Your task to perform on an android device: open app "AliExpress" (install if not already installed), go to login, and select forgot password Image 0: 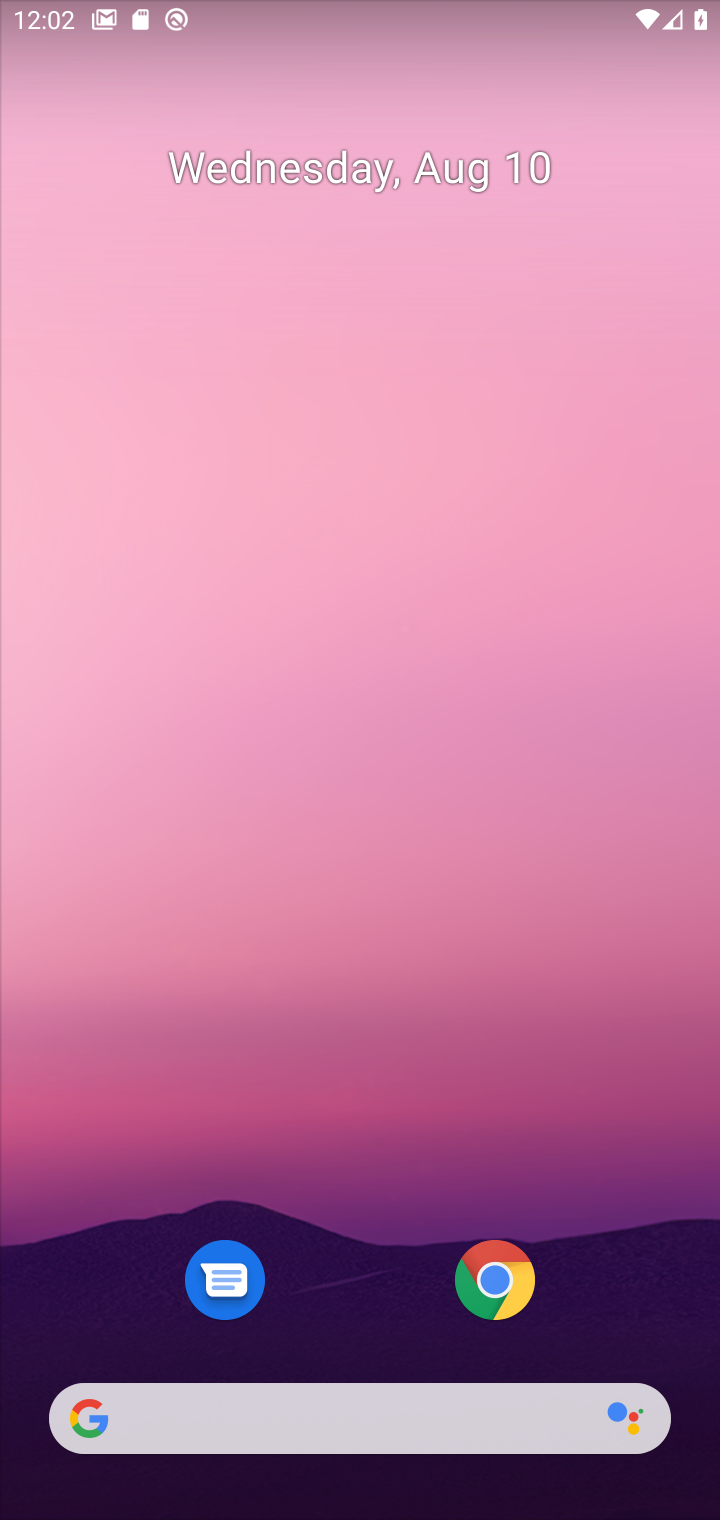
Step 0: drag from (349, 1060) to (457, 168)
Your task to perform on an android device: open app "AliExpress" (install if not already installed), go to login, and select forgot password Image 1: 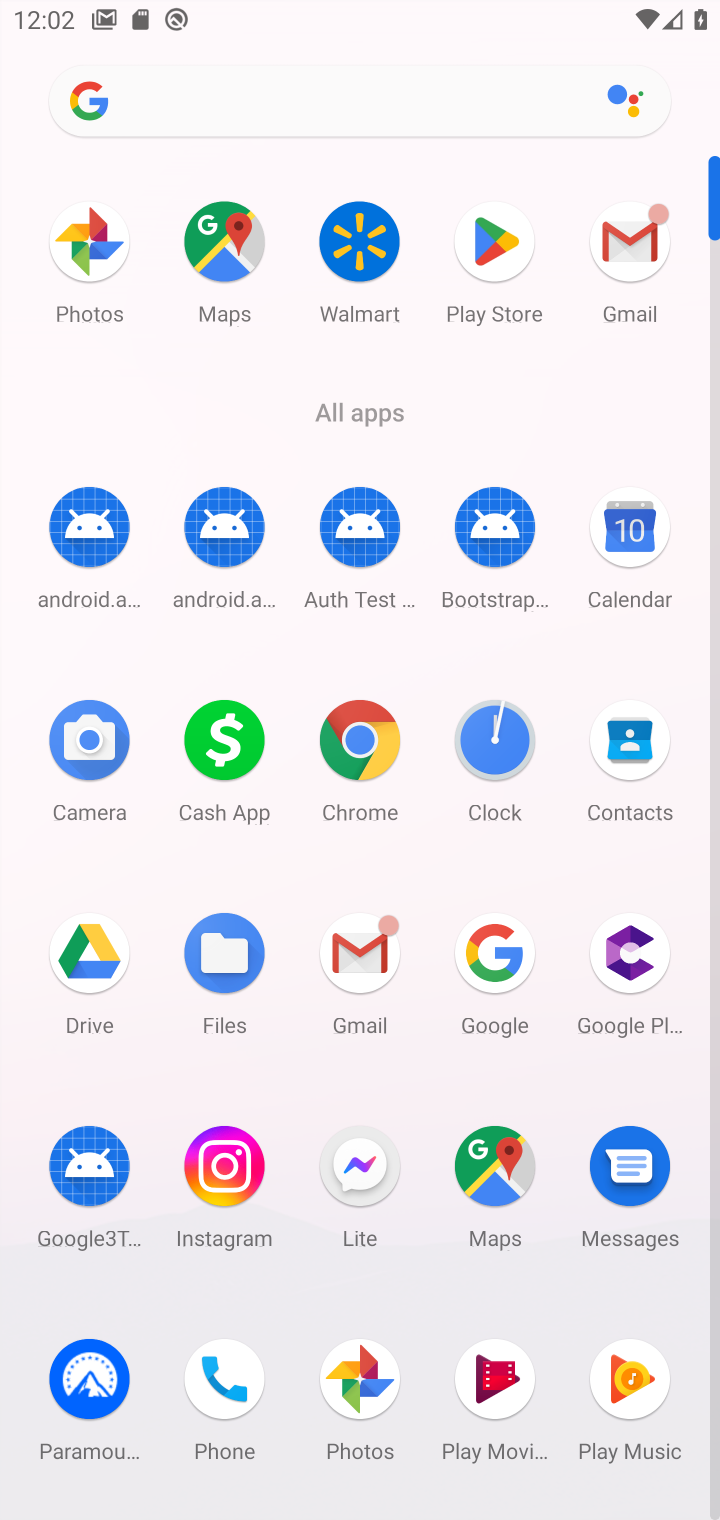
Step 1: click (511, 232)
Your task to perform on an android device: open app "AliExpress" (install if not already installed), go to login, and select forgot password Image 2: 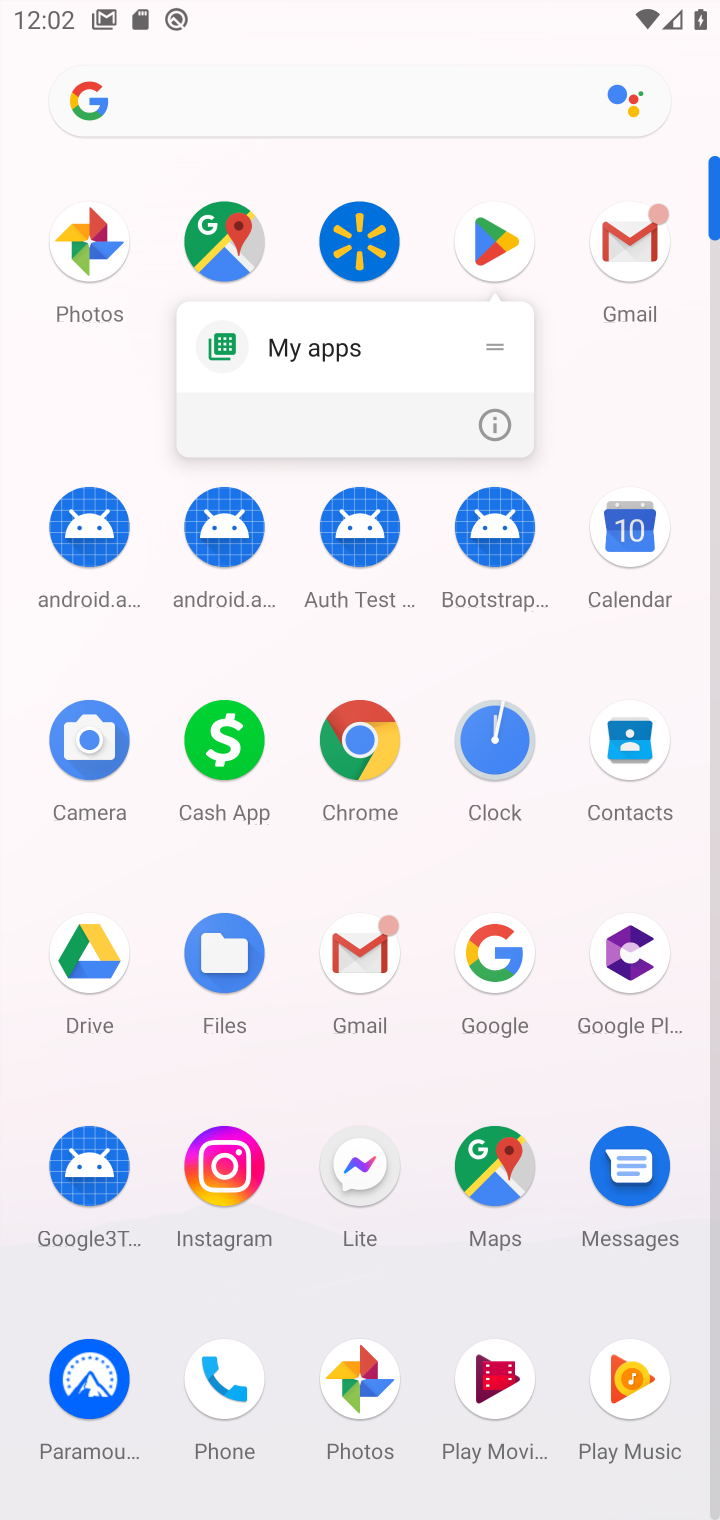
Step 2: click (494, 244)
Your task to perform on an android device: open app "AliExpress" (install if not already installed), go to login, and select forgot password Image 3: 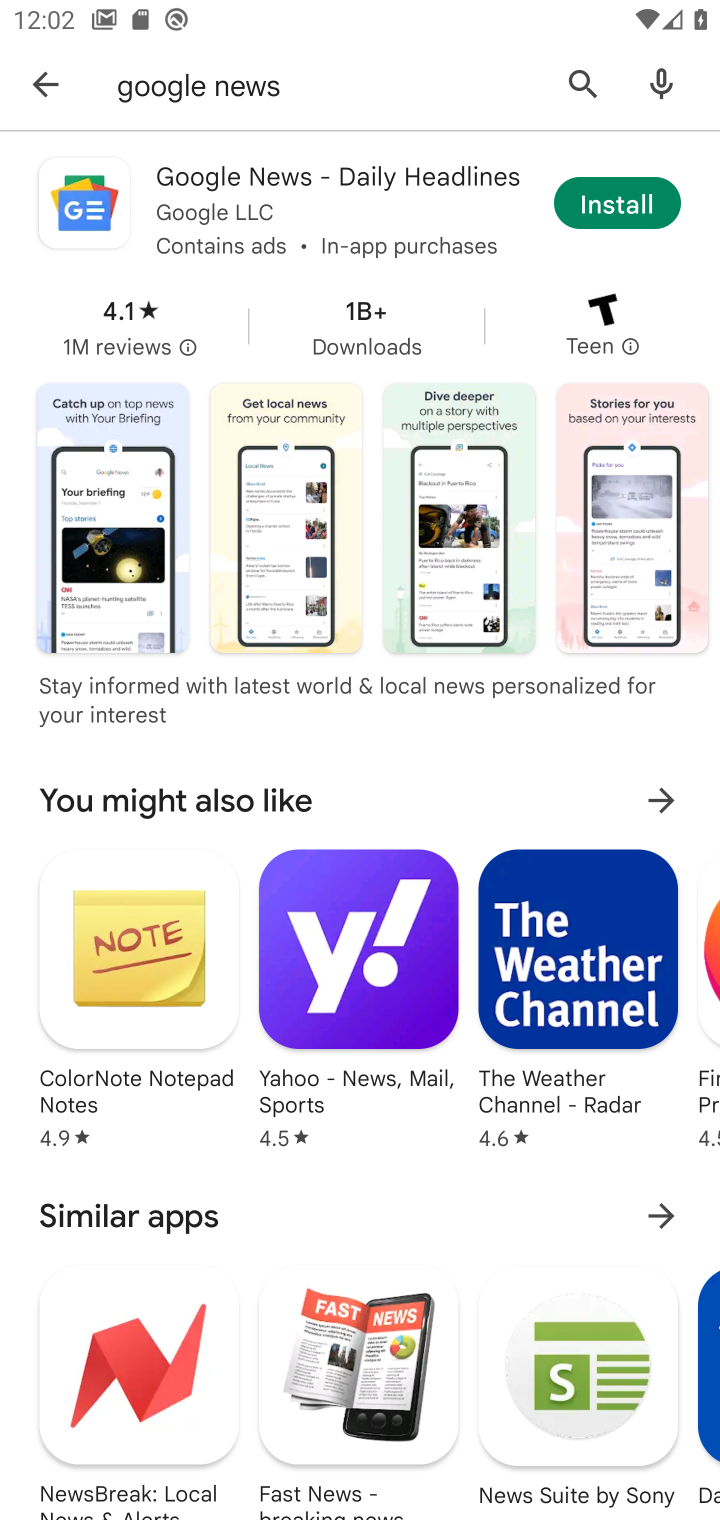
Step 3: click (592, 73)
Your task to perform on an android device: open app "AliExpress" (install if not already installed), go to login, and select forgot password Image 4: 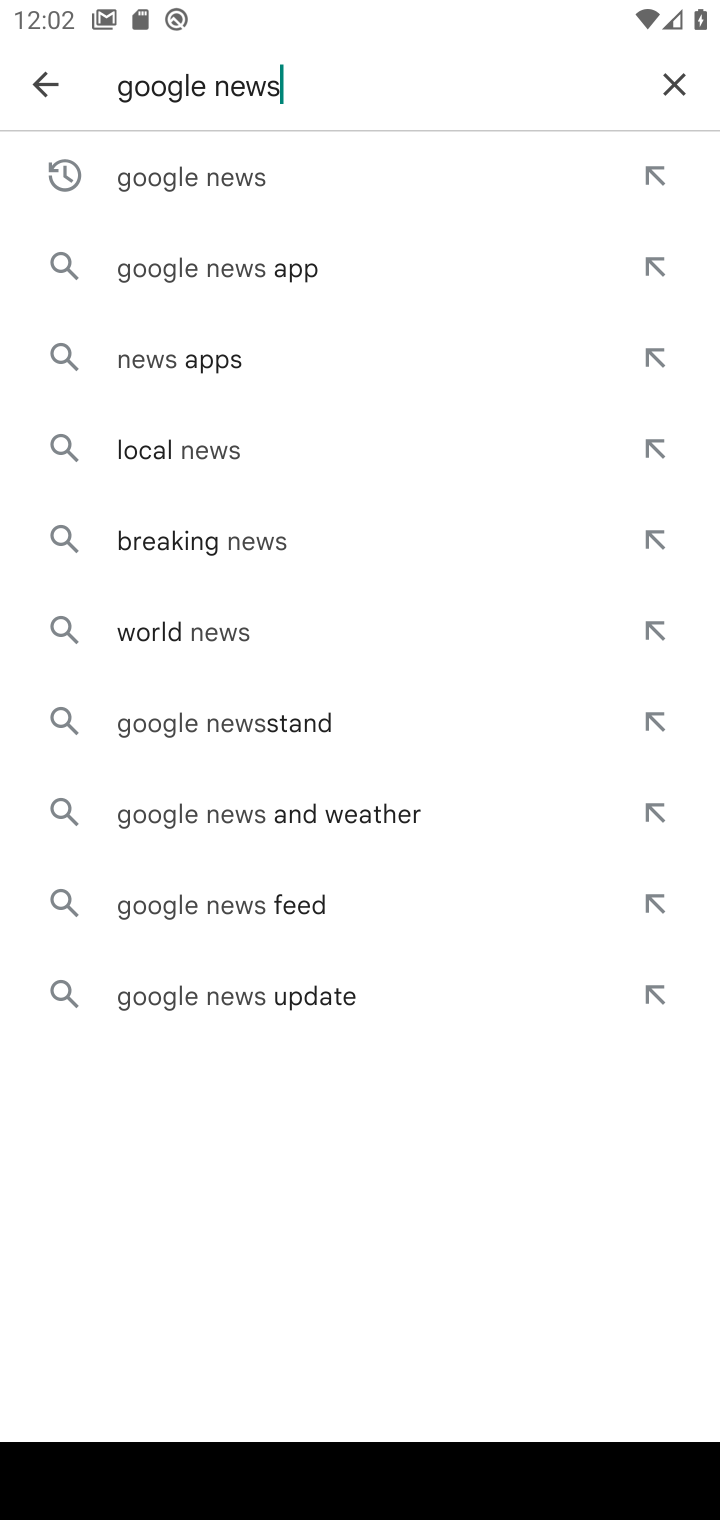
Step 4: click (677, 81)
Your task to perform on an android device: open app "AliExpress" (install if not already installed), go to login, and select forgot password Image 5: 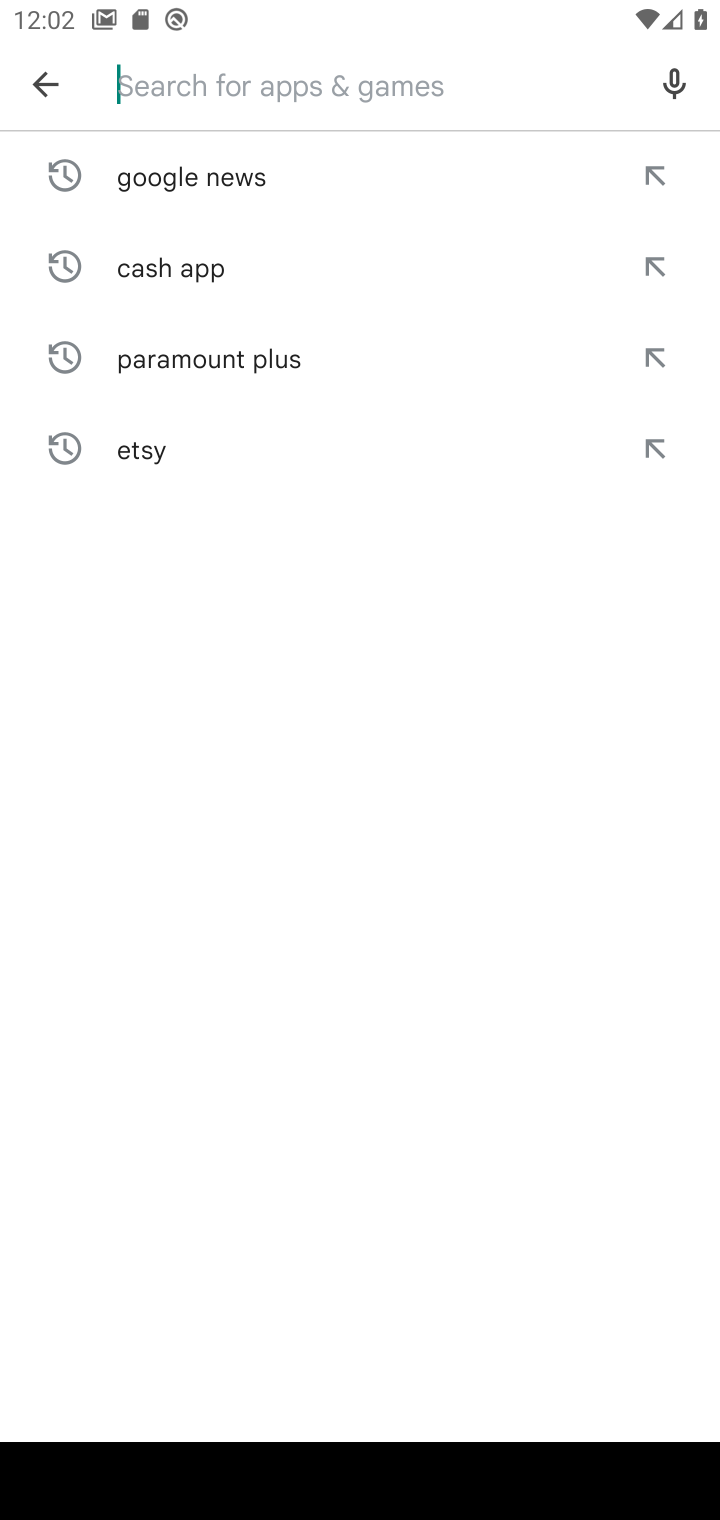
Step 5: click (221, 80)
Your task to perform on an android device: open app "AliExpress" (install if not already installed), go to login, and select forgot password Image 6: 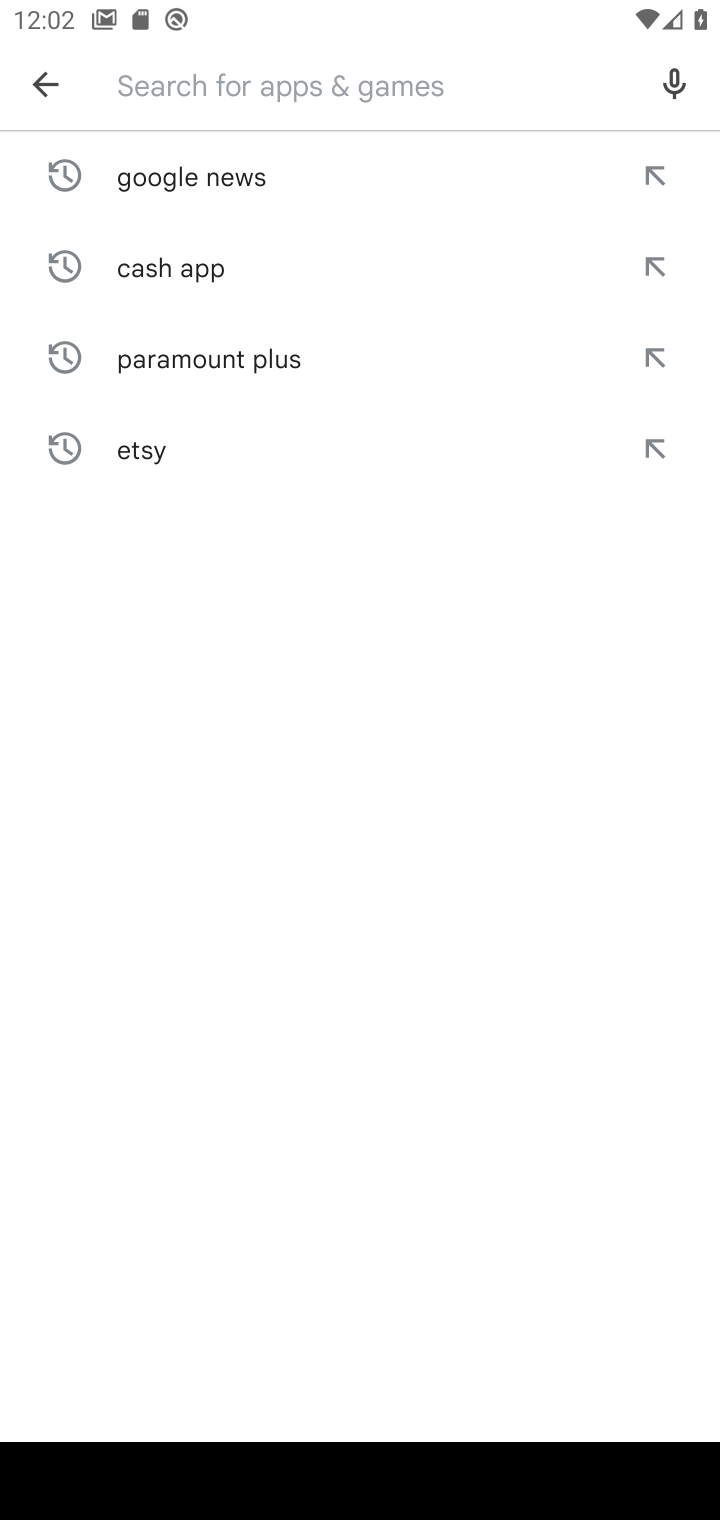
Step 6: type "ali express"
Your task to perform on an android device: open app "AliExpress" (install if not already installed), go to login, and select forgot password Image 7: 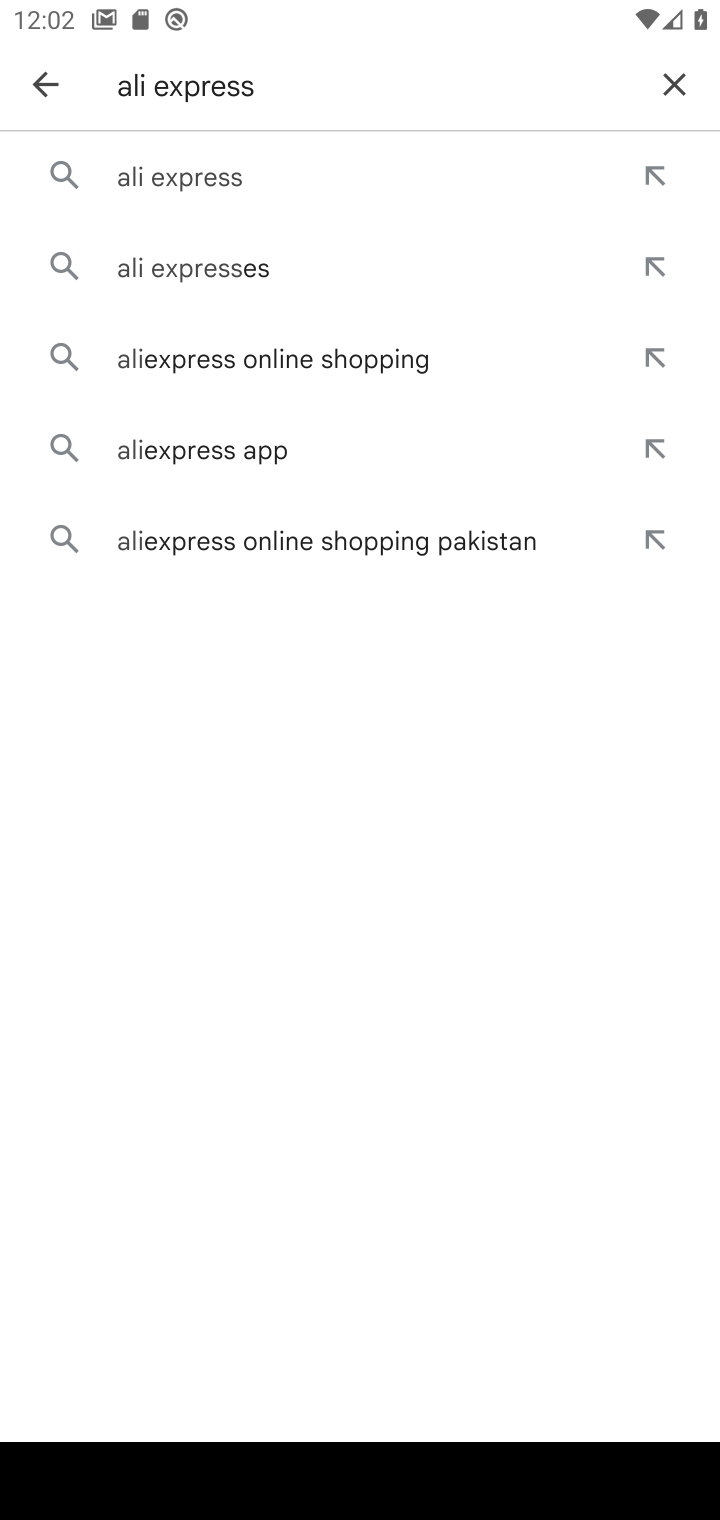
Step 7: click (301, 187)
Your task to perform on an android device: open app "AliExpress" (install if not already installed), go to login, and select forgot password Image 8: 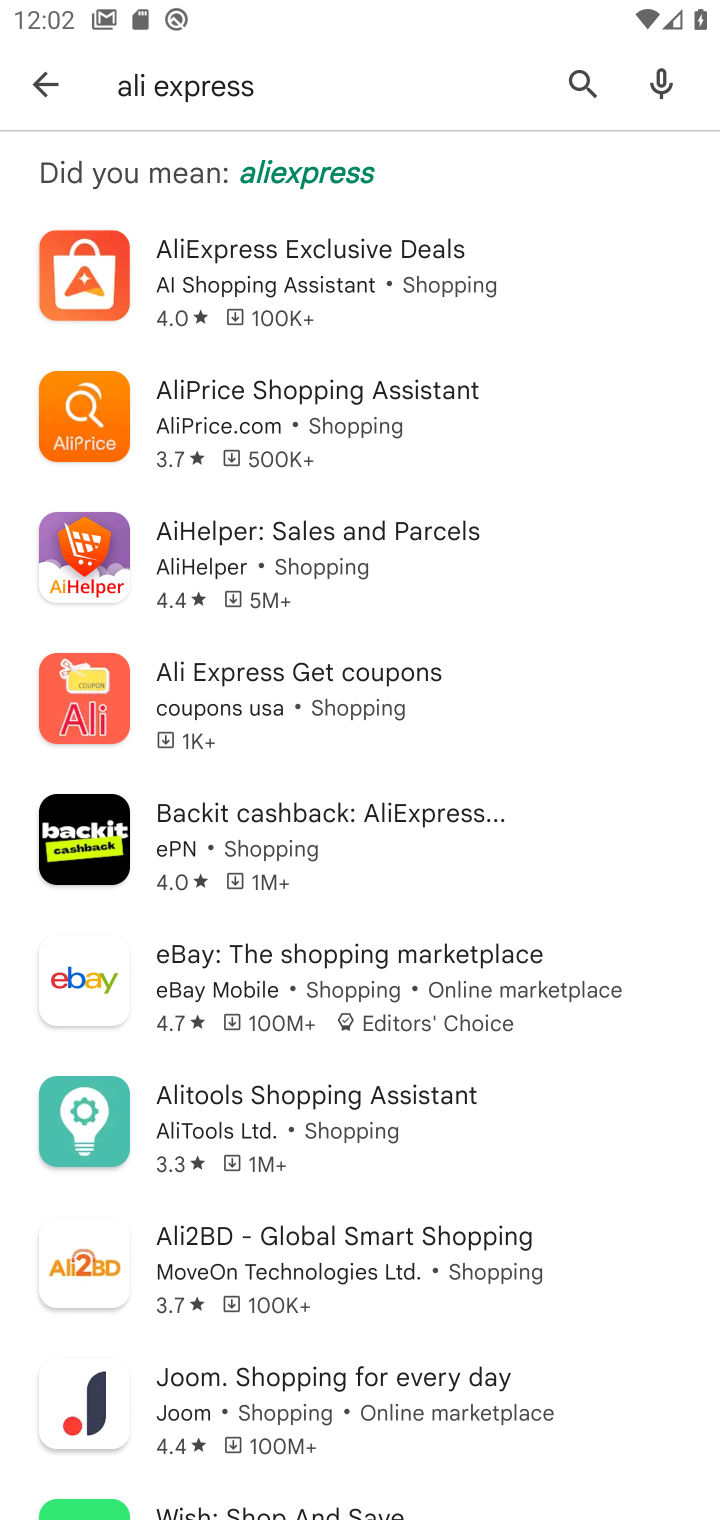
Step 8: click (348, 247)
Your task to perform on an android device: open app "AliExpress" (install if not already installed), go to login, and select forgot password Image 9: 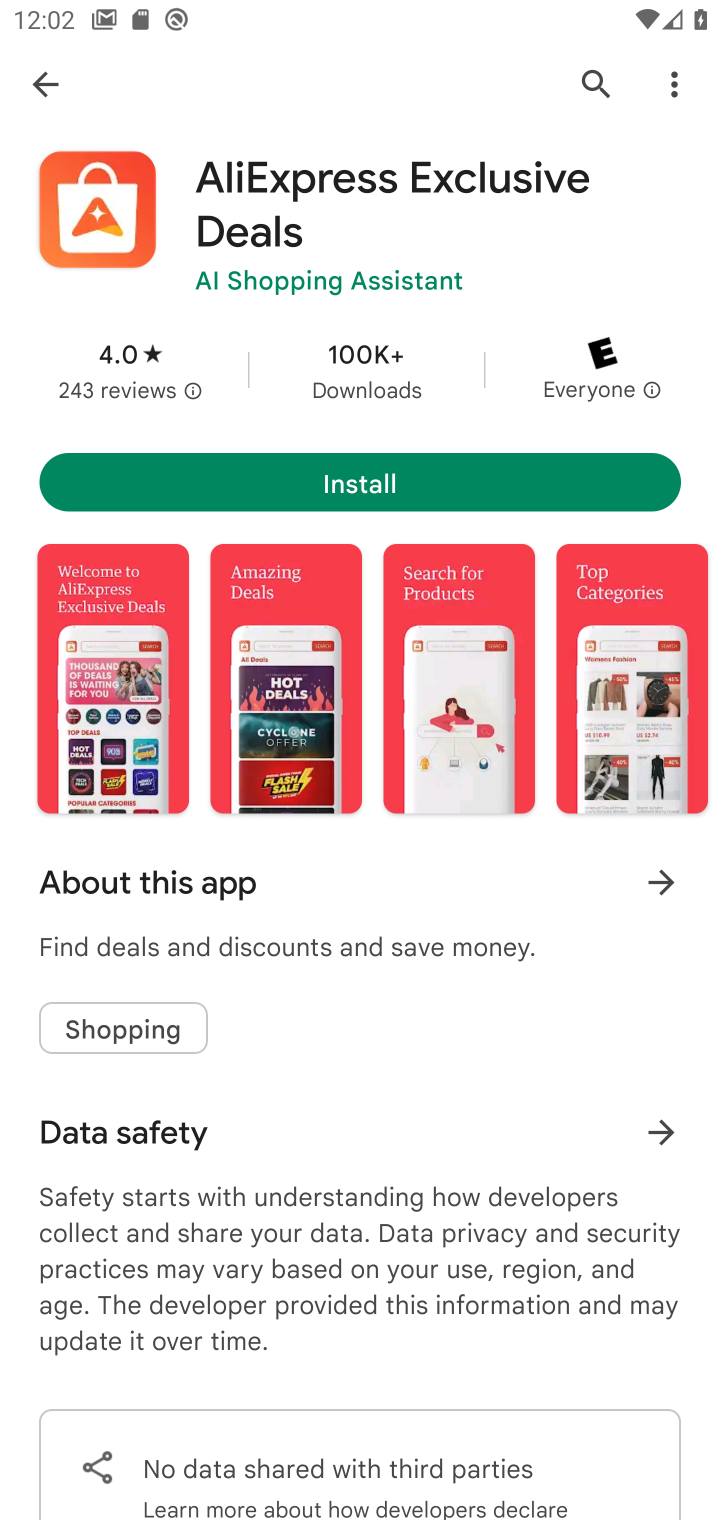
Step 9: click (389, 460)
Your task to perform on an android device: open app "AliExpress" (install if not already installed), go to login, and select forgot password Image 10: 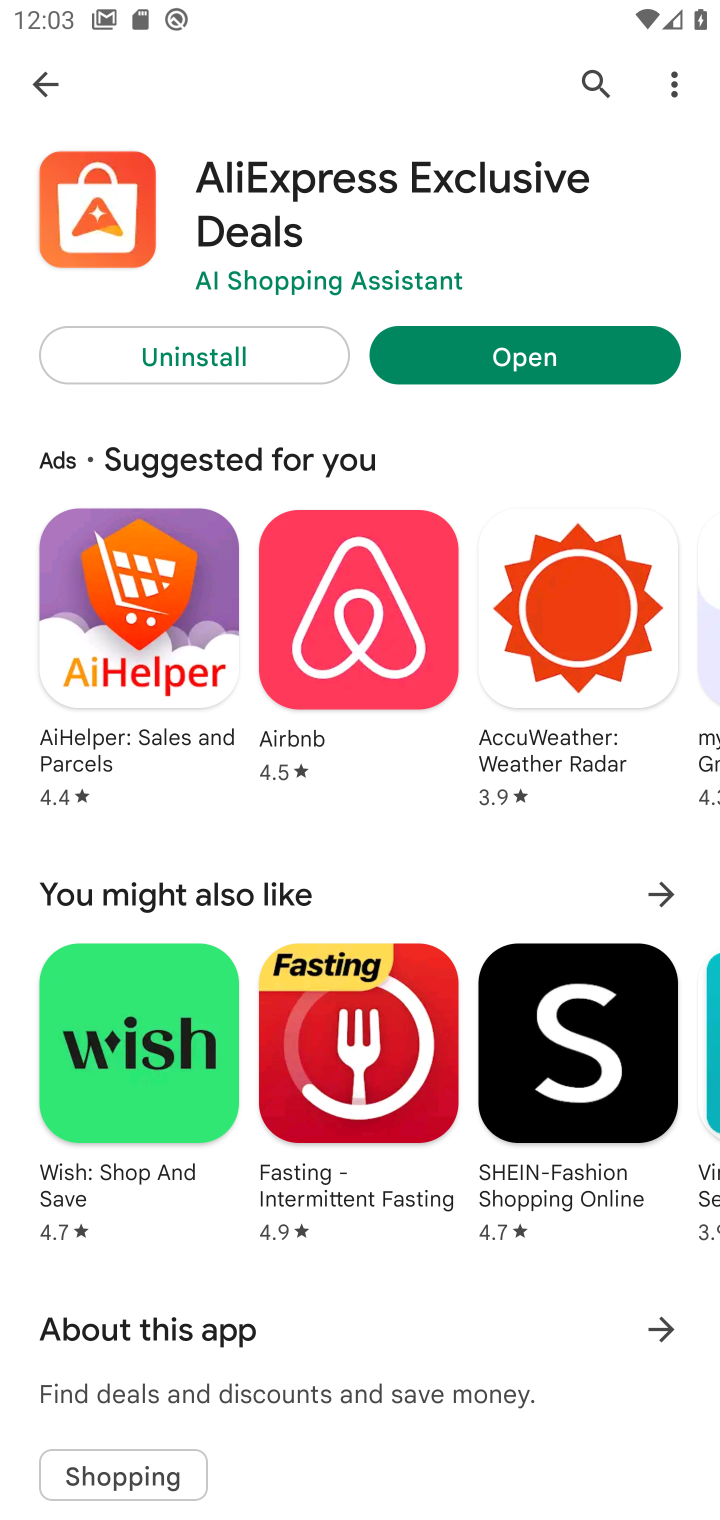
Step 10: click (501, 348)
Your task to perform on an android device: open app "AliExpress" (install if not already installed), go to login, and select forgot password Image 11: 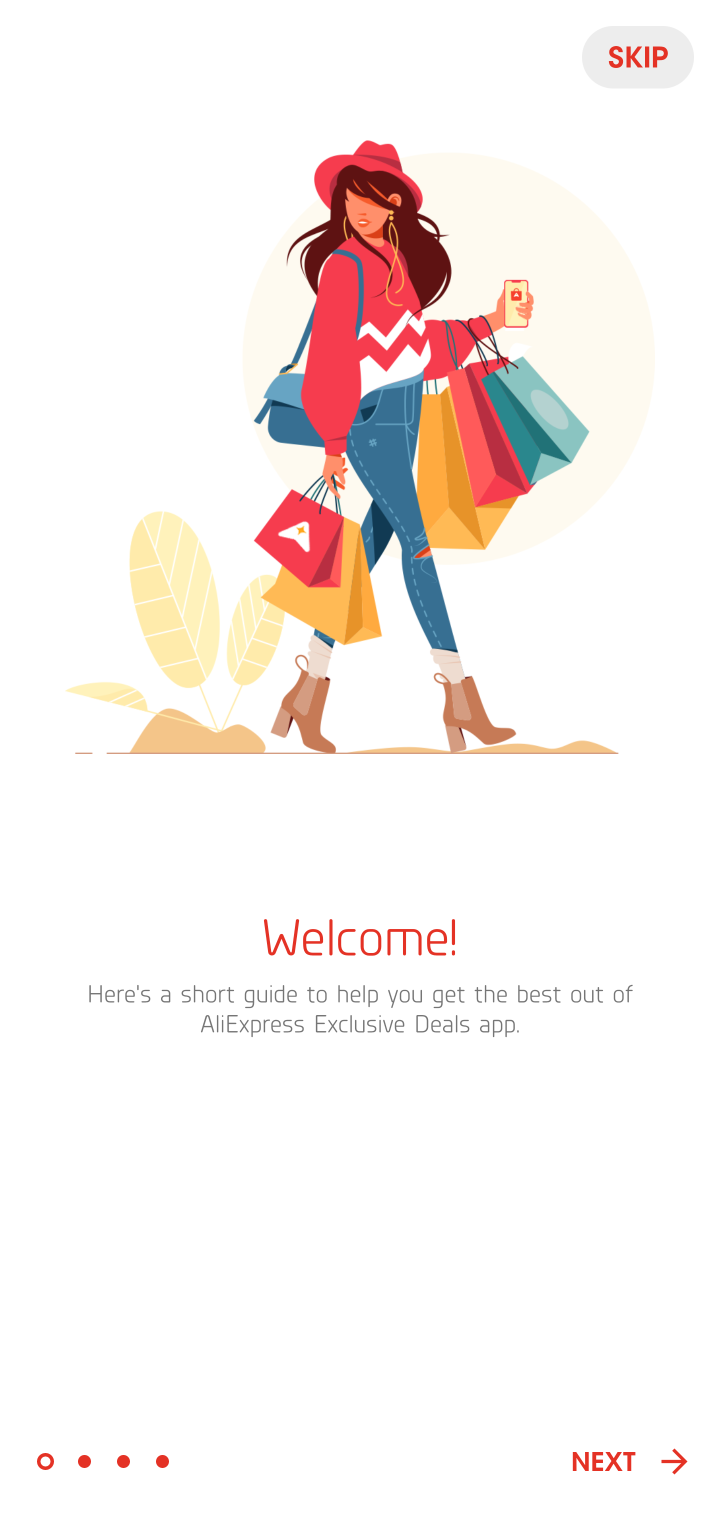
Step 11: click (642, 72)
Your task to perform on an android device: open app "AliExpress" (install if not already installed), go to login, and select forgot password Image 12: 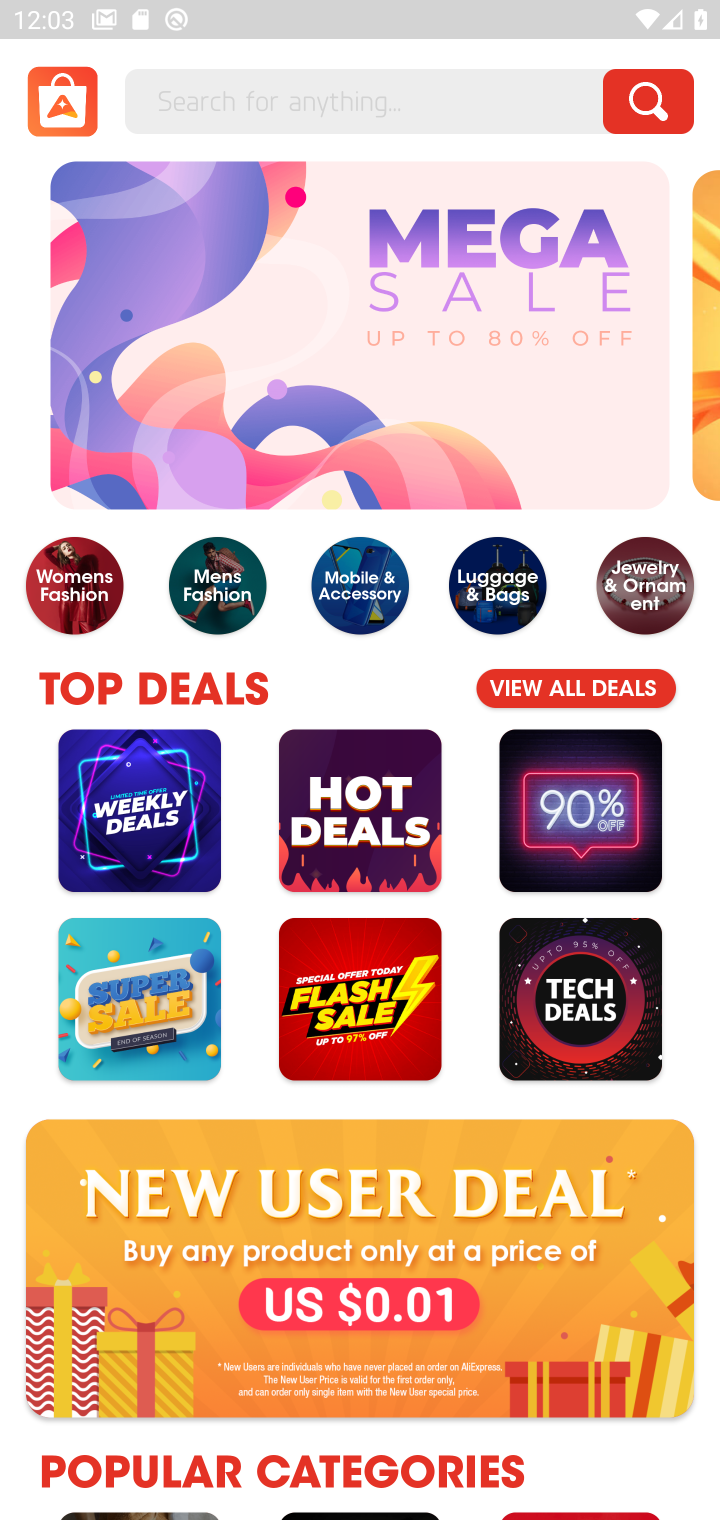
Step 12: click (51, 100)
Your task to perform on an android device: open app "AliExpress" (install if not already installed), go to login, and select forgot password Image 13: 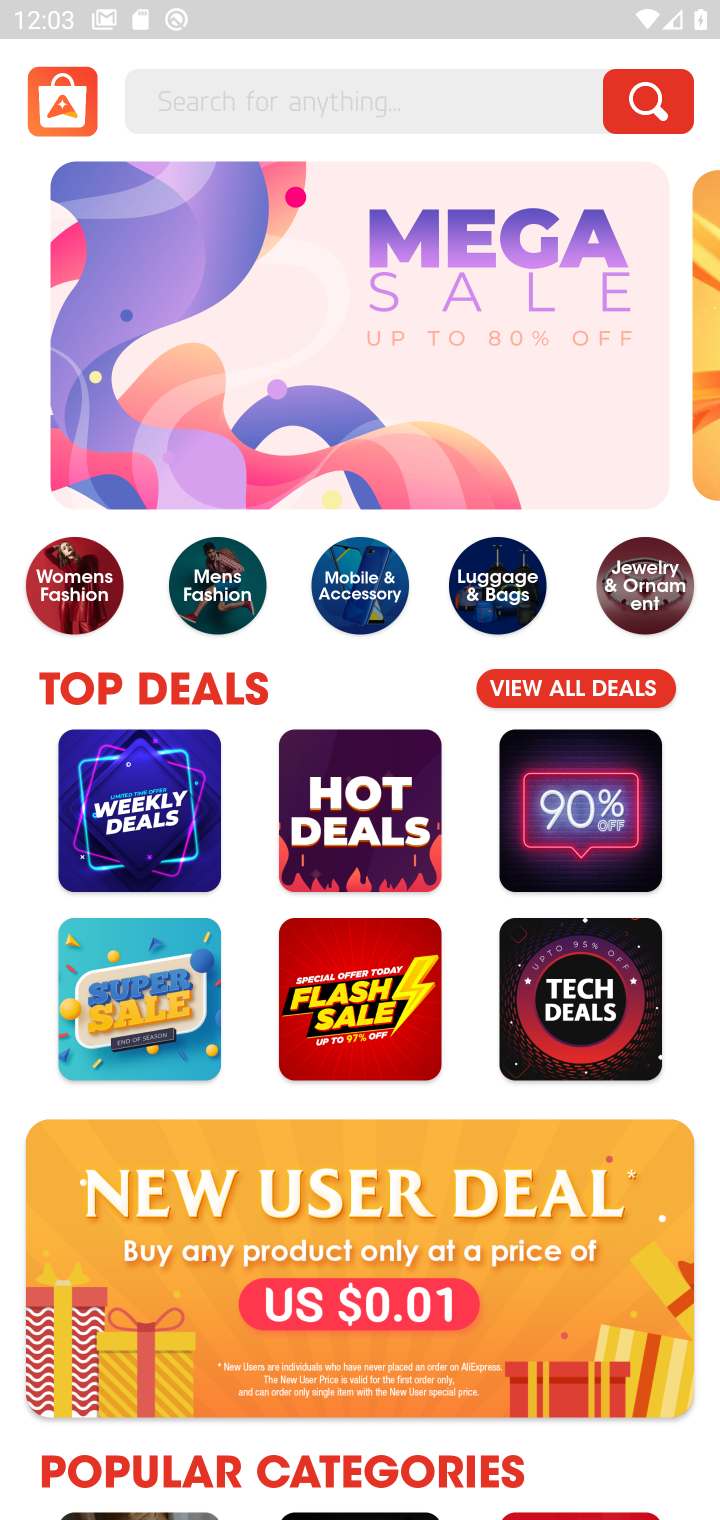
Step 13: click (63, 102)
Your task to perform on an android device: open app "AliExpress" (install if not already installed), go to login, and select forgot password Image 14: 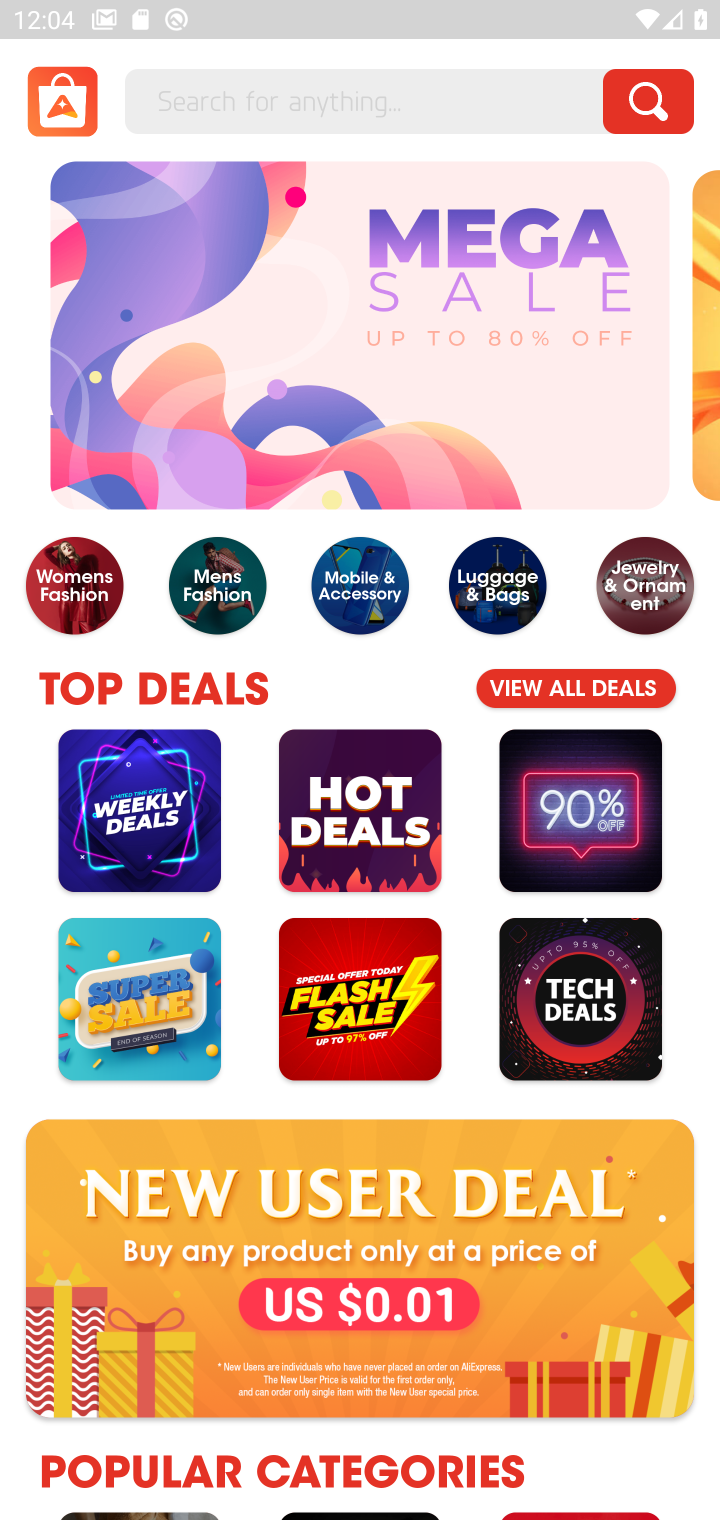
Step 14: click (68, 102)
Your task to perform on an android device: open app "AliExpress" (install if not already installed), go to login, and select forgot password Image 15: 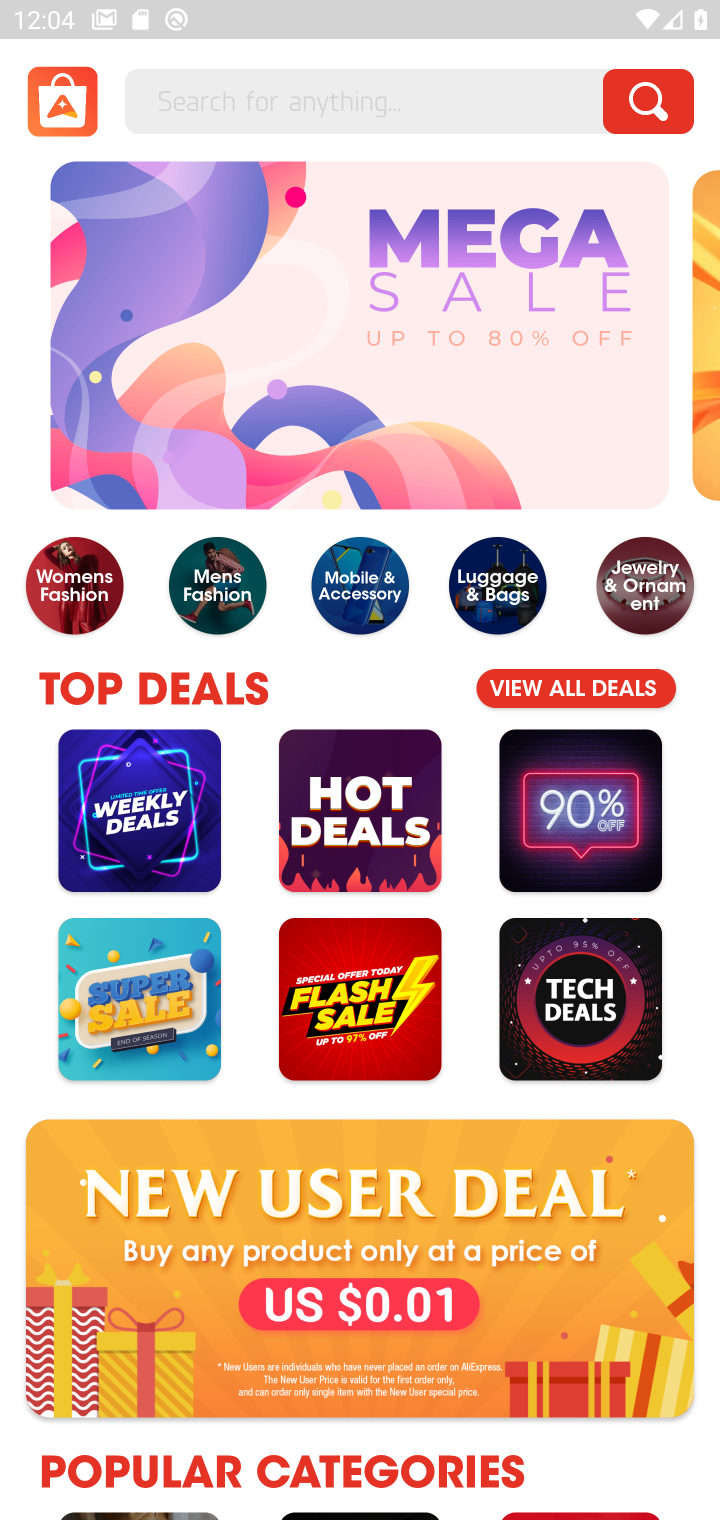
Step 15: drag from (422, 1151) to (378, 1502)
Your task to perform on an android device: open app "AliExpress" (install if not already installed), go to login, and select forgot password Image 16: 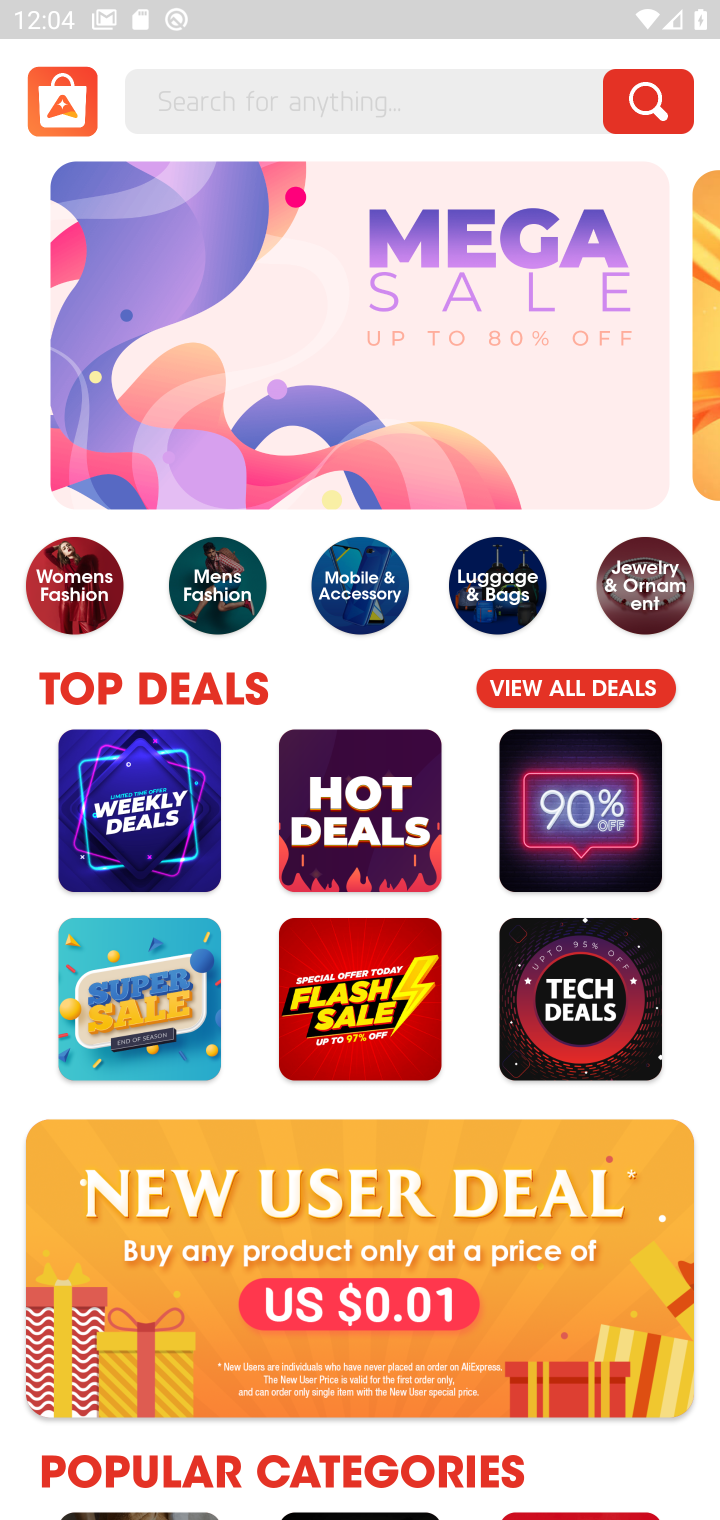
Step 16: click (77, 97)
Your task to perform on an android device: open app "AliExpress" (install if not already installed), go to login, and select forgot password Image 17: 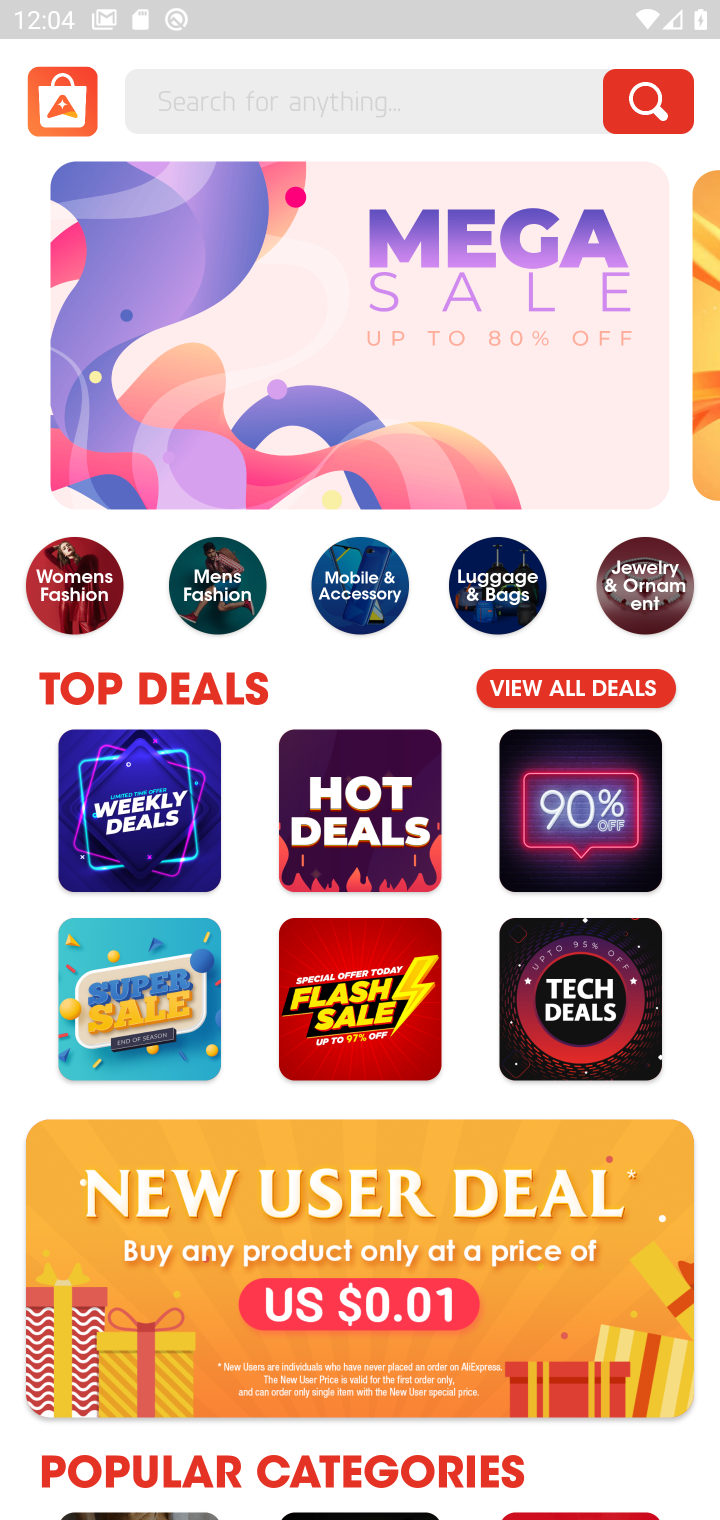
Step 17: task complete